Your task to perform on an android device: check android version Image 0: 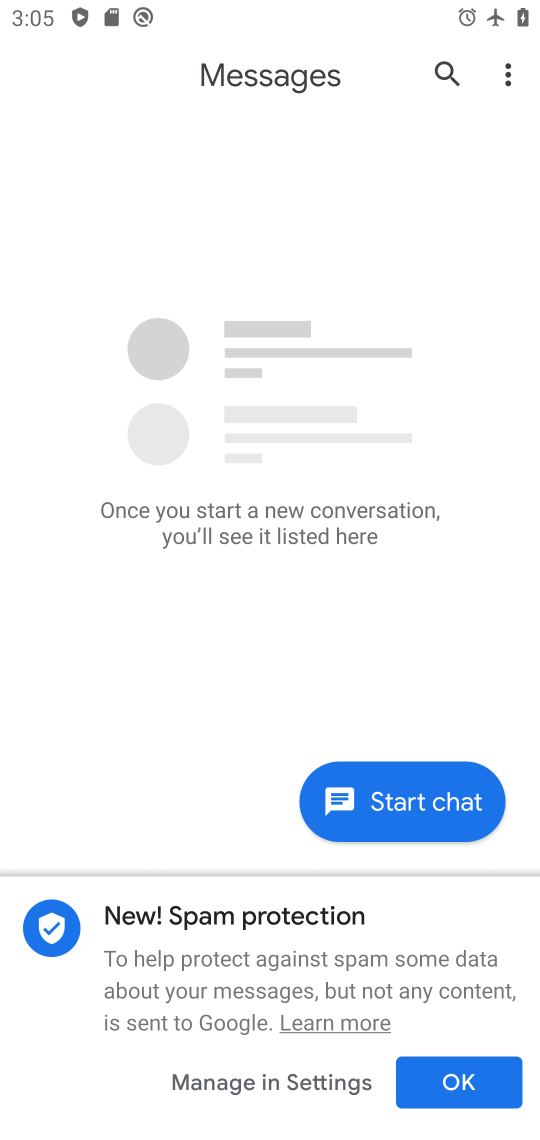
Step 0: drag from (268, 816) to (302, 471)
Your task to perform on an android device: check android version Image 1: 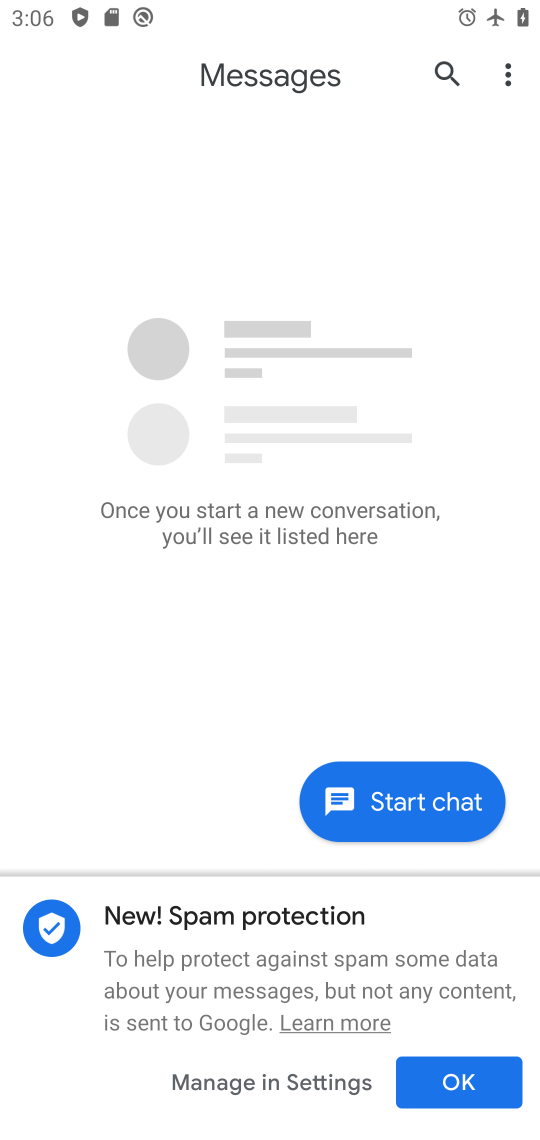
Step 1: press home button
Your task to perform on an android device: check android version Image 2: 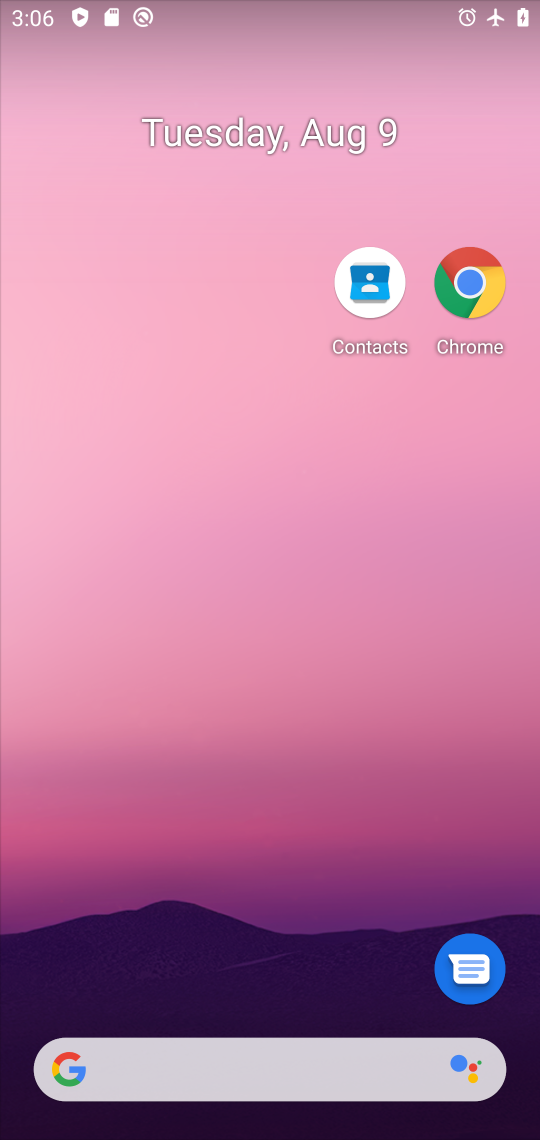
Step 2: drag from (310, 996) to (317, 557)
Your task to perform on an android device: check android version Image 3: 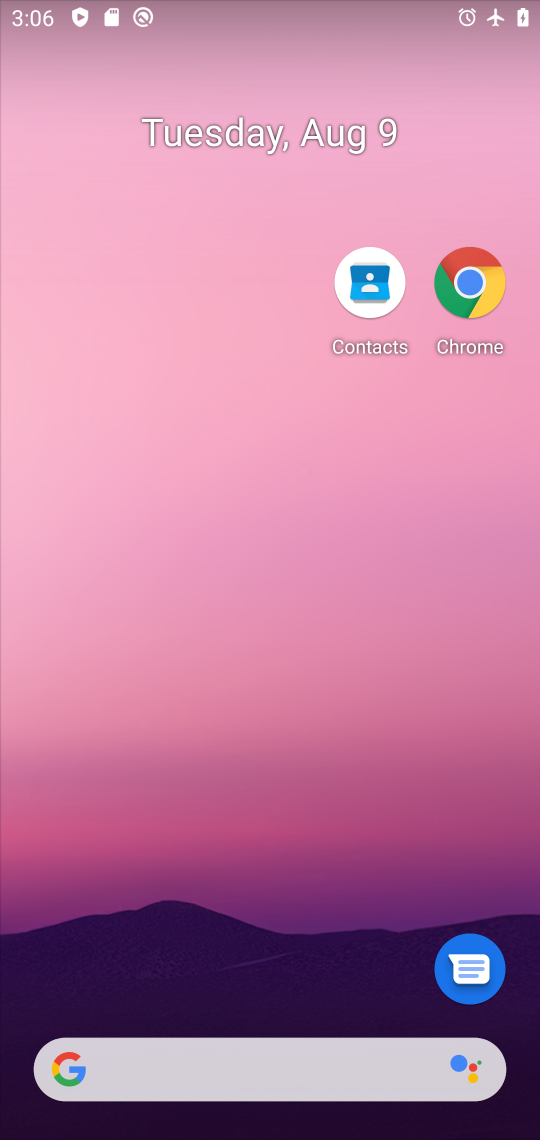
Step 3: drag from (302, 838) to (336, 307)
Your task to perform on an android device: check android version Image 4: 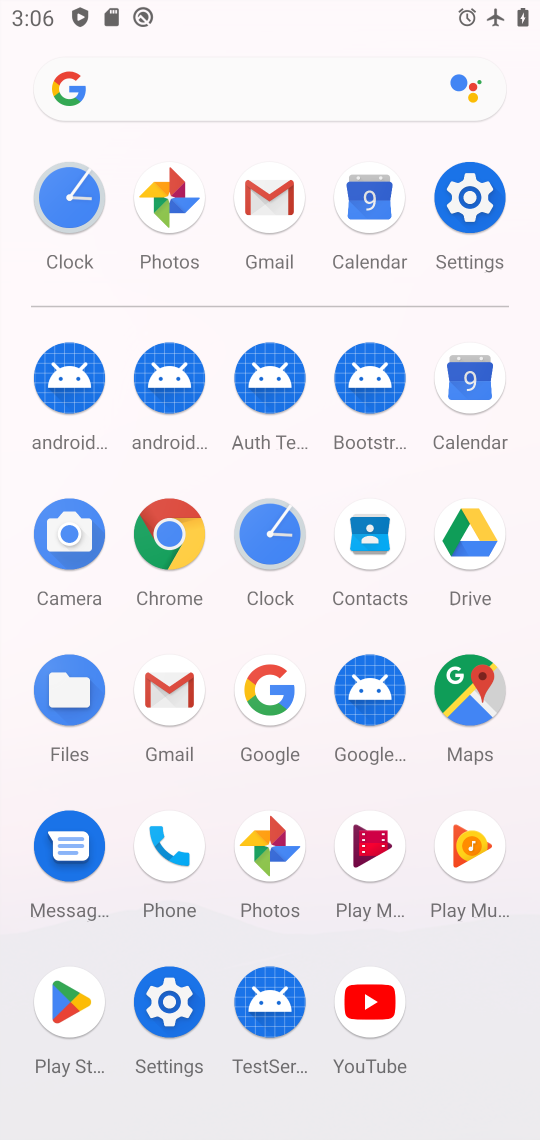
Step 4: click (483, 226)
Your task to perform on an android device: check android version Image 5: 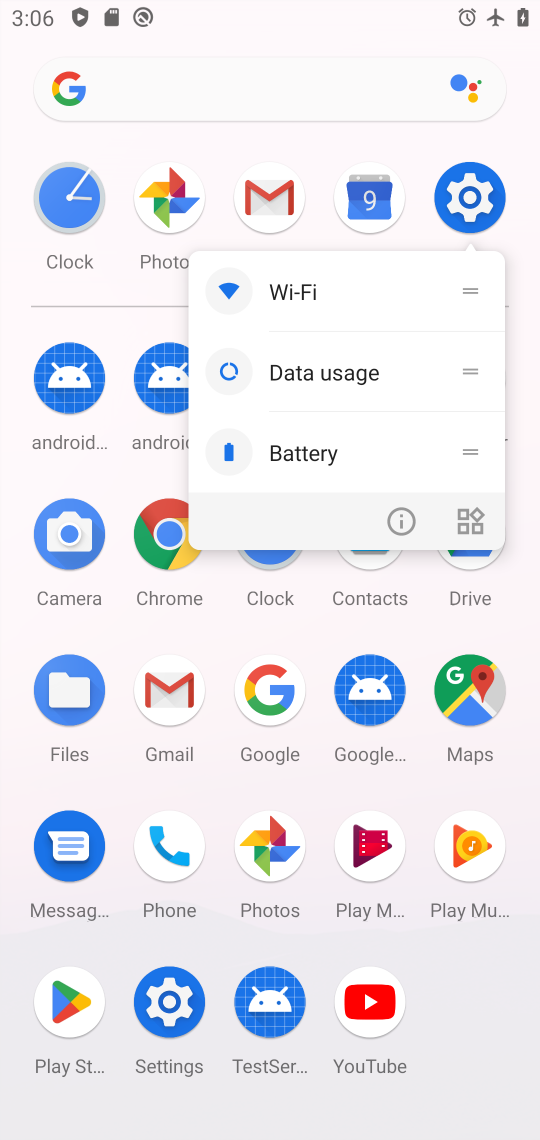
Step 5: click (383, 502)
Your task to perform on an android device: check android version Image 6: 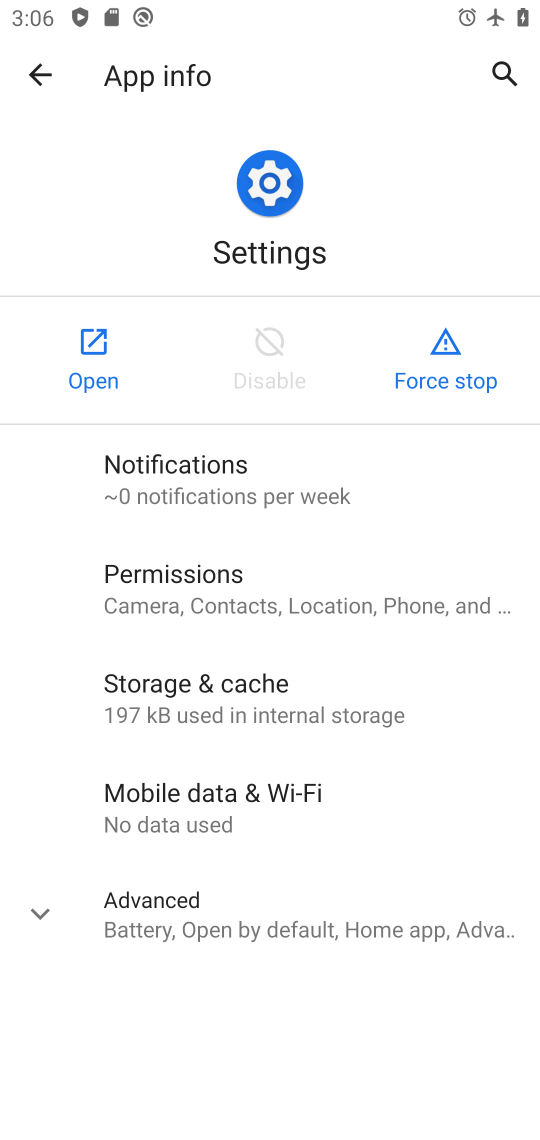
Step 6: click (102, 355)
Your task to perform on an android device: check android version Image 7: 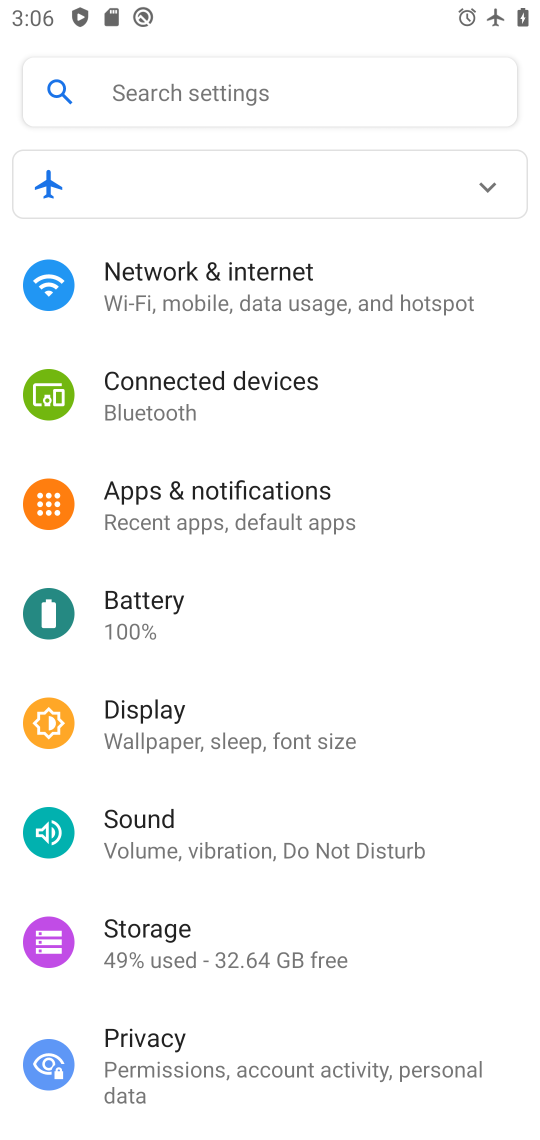
Step 7: drag from (225, 1042) to (423, 225)
Your task to perform on an android device: check android version Image 8: 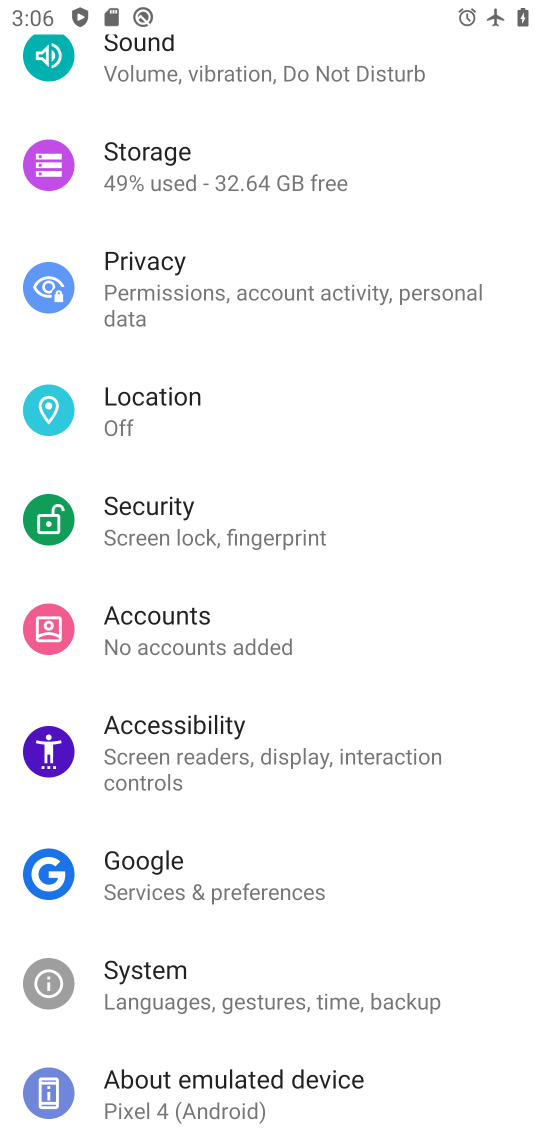
Step 8: drag from (265, 1021) to (271, 515)
Your task to perform on an android device: check android version Image 9: 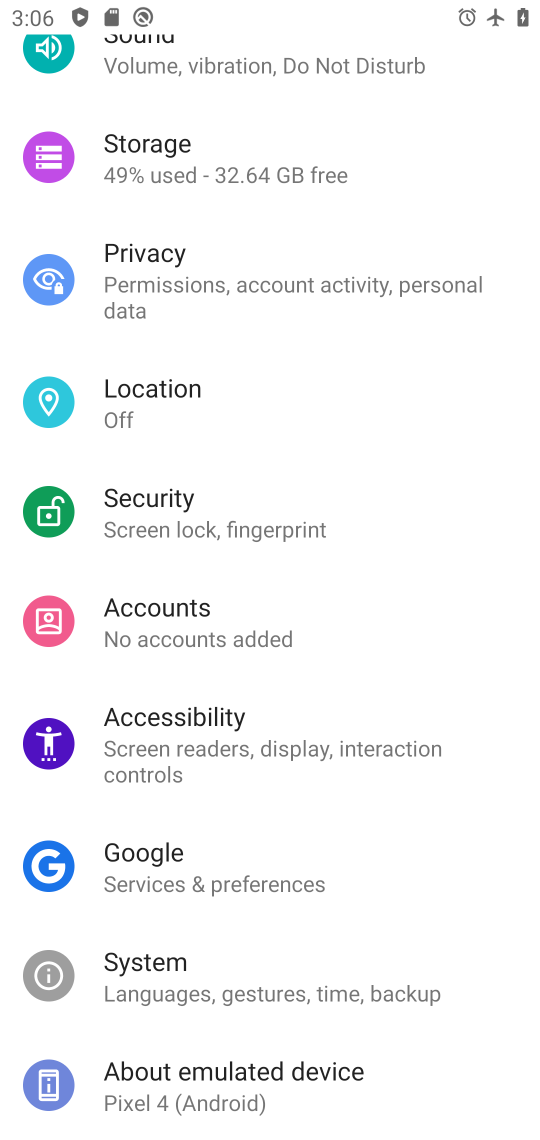
Step 9: click (196, 1100)
Your task to perform on an android device: check android version Image 10: 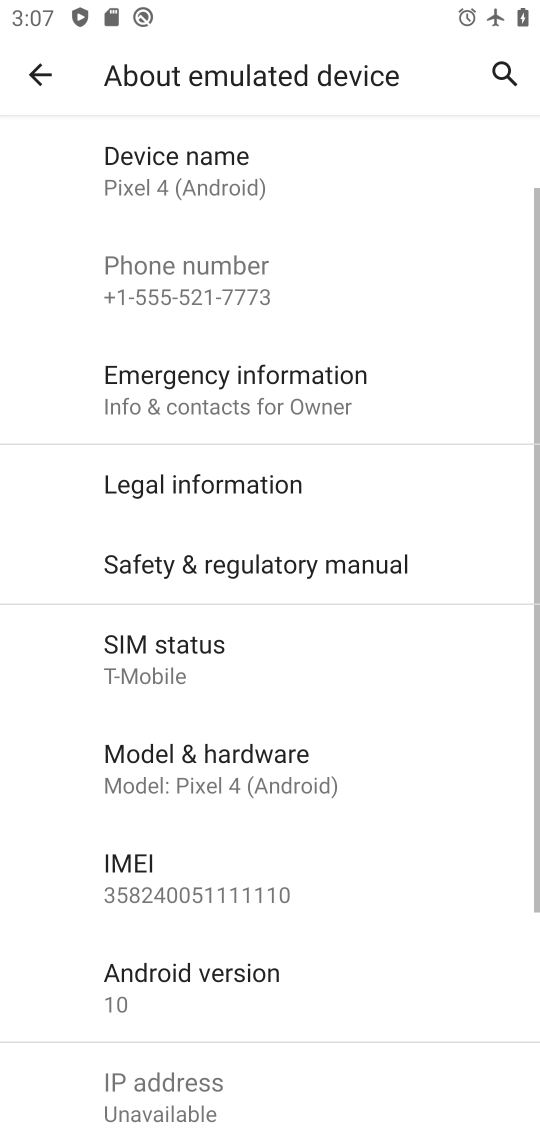
Step 10: click (248, 973)
Your task to perform on an android device: check android version Image 11: 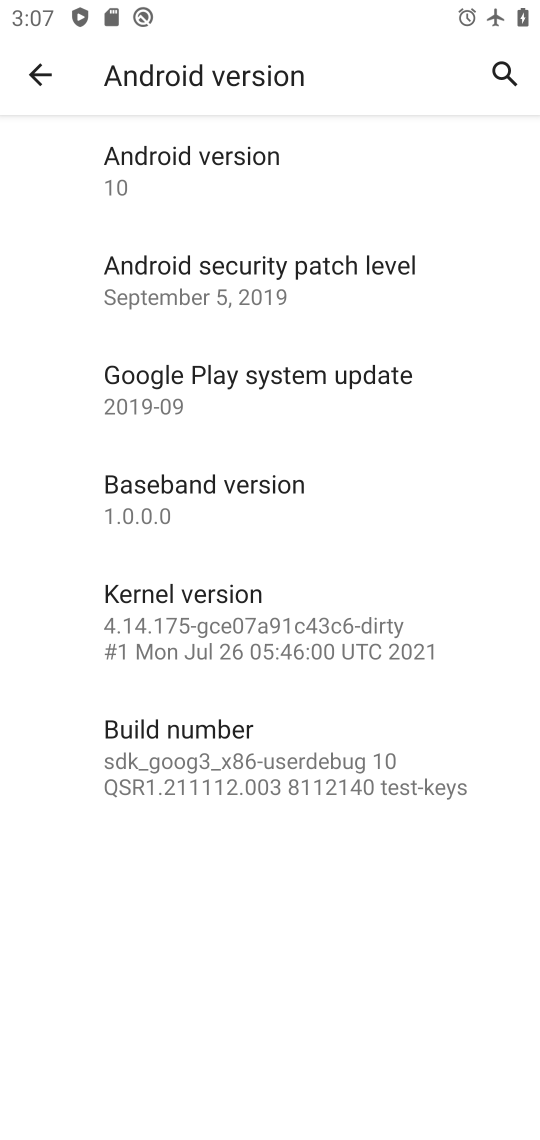
Step 11: click (271, 189)
Your task to perform on an android device: check android version Image 12: 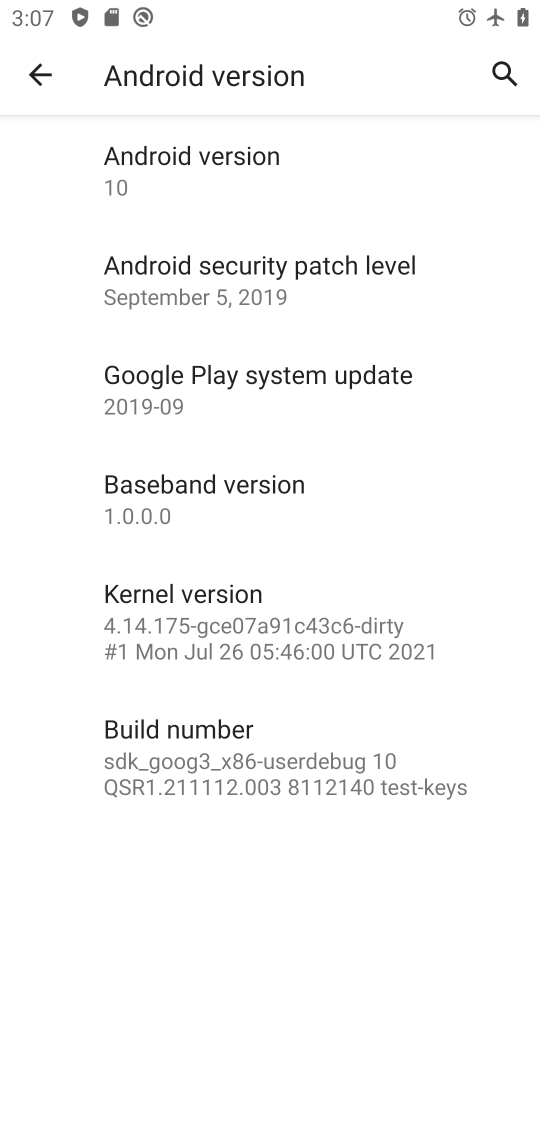
Step 12: task complete